Your task to perform on an android device: change notification settings in the gmail app Image 0: 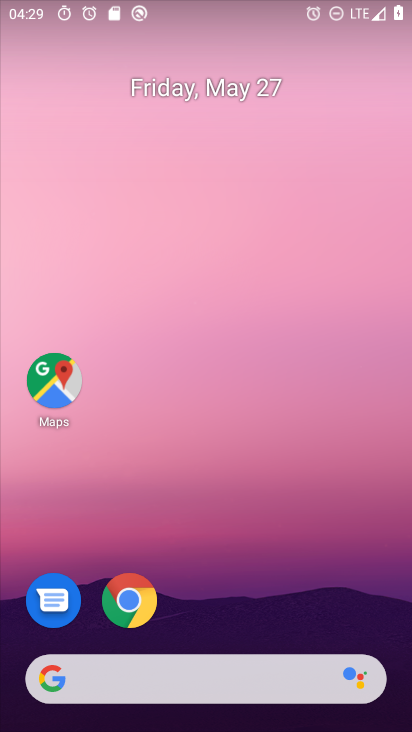
Step 0: drag from (229, 726) to (208, 94)
Your task to perform on an android device: change notification settings in the gmail app Image 1: 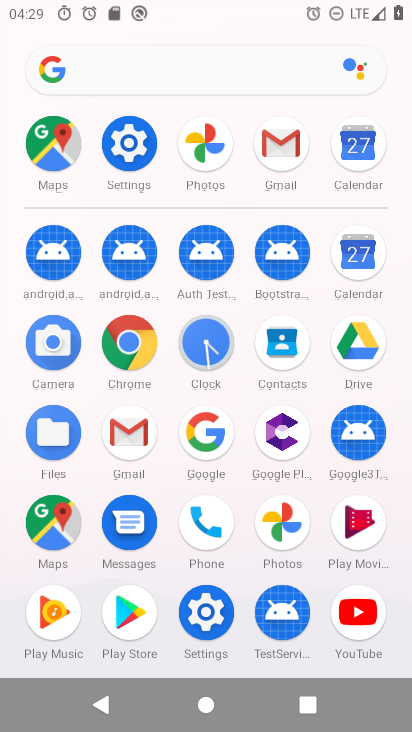
Step 1: click (126, 420)
Your task to perform on an android device: change notification settings in the gmail app Image 2: 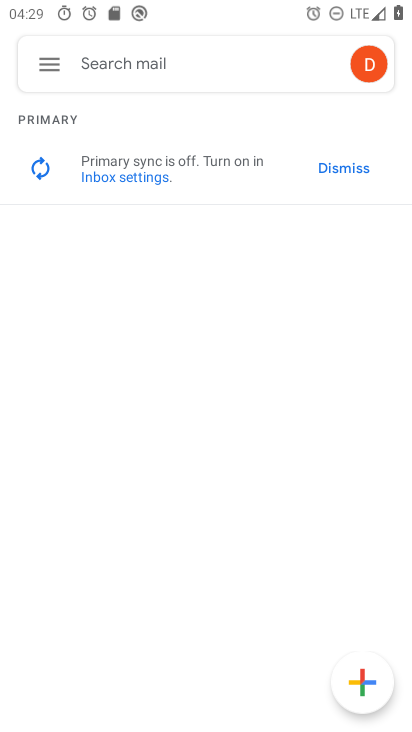
Step 2: click (55, 62)
Your task to perform on an android device: change notification settings in the gmail app Image 3: 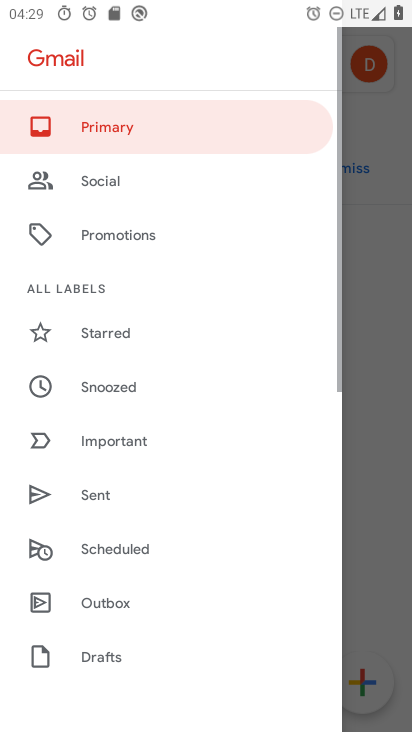
Step 3: drag from (168, 653) to (165, 258)
Your task to perform on an android device: change notification settings in the gmail app Image 4: 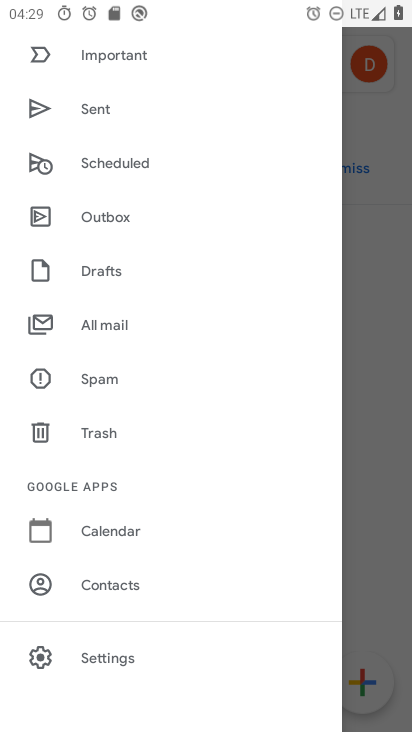
Step 4: click (106, 658)
Your task to perform on an android device: change notification settings in the gmail app Image 5: 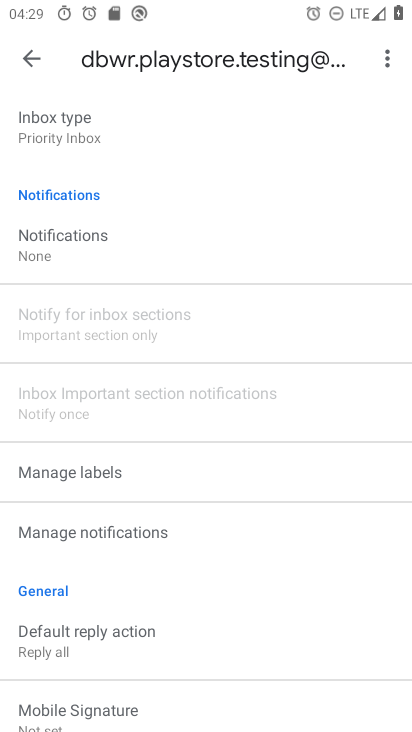
Step 5: click (103, 244)
Your task to perform on an android device: change notification settings in the gmail app Image 6: 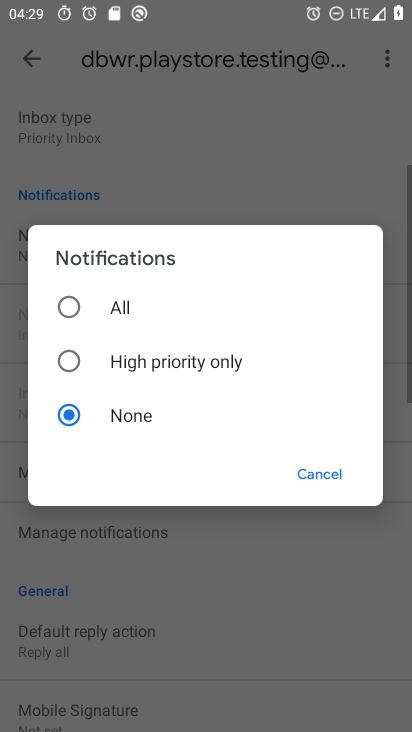
Step 6: click (73, 300)
Your task to perform on an android device: change notification settings in the gmail app Image 7: 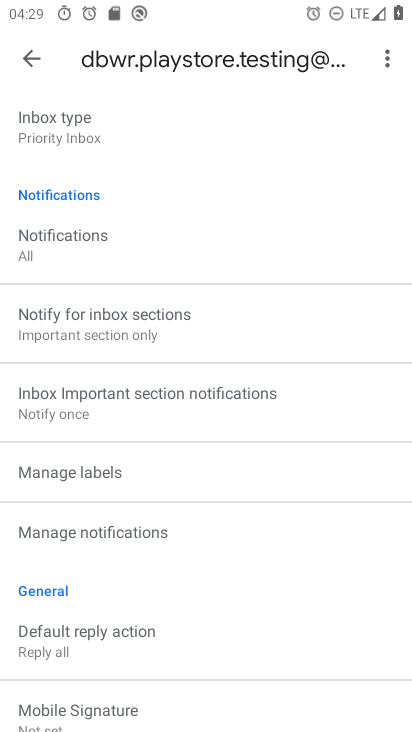
Step 7: task complete